Your task to perform on an android device: see sites visited before in the chrome app Image 0: 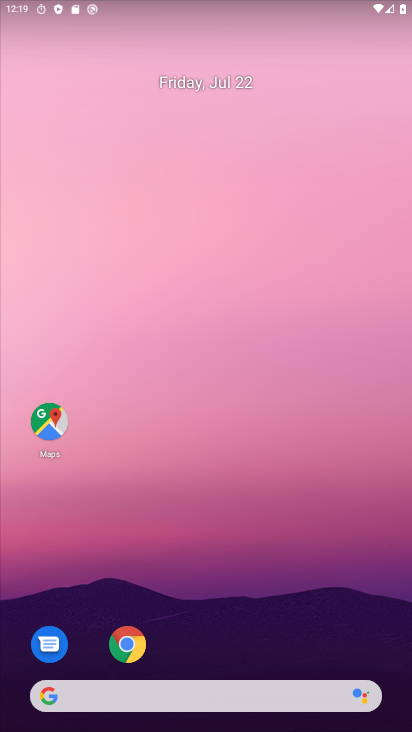
Step 0: drag from (177, 593) to (192, 239)
Your task to perform on an android device: see sites visited before in the chrome app Image 1: 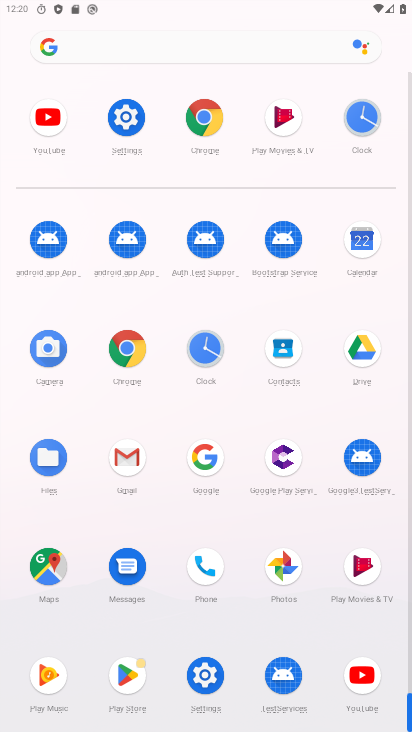
Step 1: click (203, 133)
Your task to perform on an android device: see sites visited before in the chrome app Image 2: 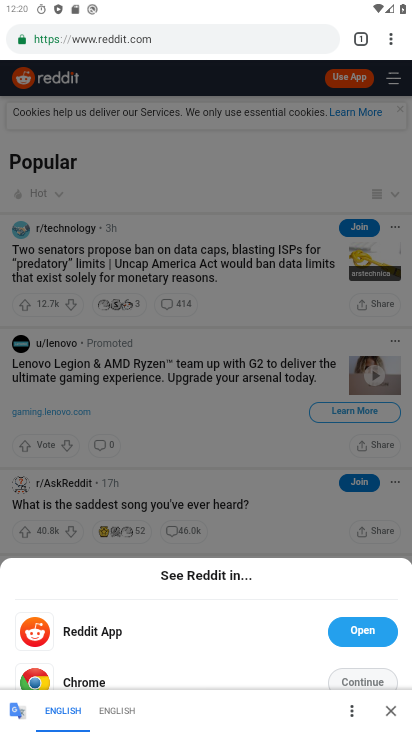
Step 2: click (386, 48)
Your task to perform on an android device: see sites visited before in the chrome app Image 3: 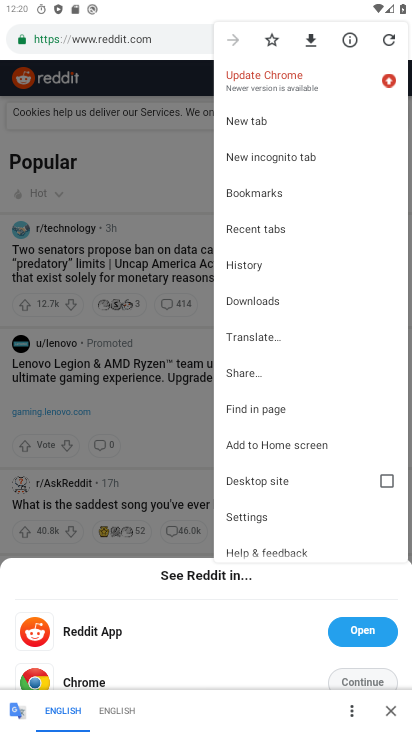
Step 3: click (260, 269)
Your task to perform on an android device: see sites visited before in the chrome app Image 4: 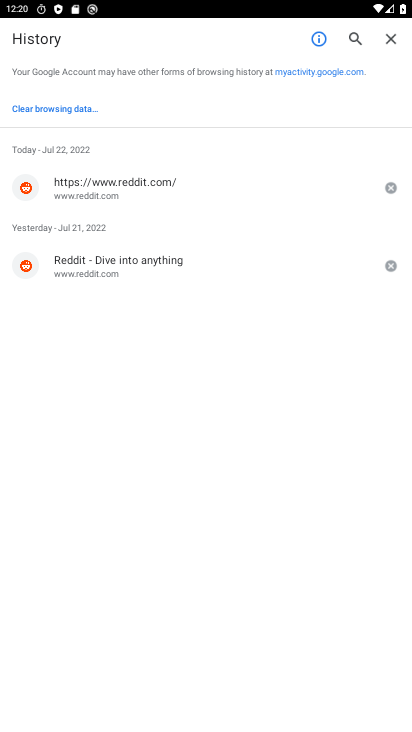
Step 4: task complete